Your task to perform on an android device: turn on translation in the chrome app Image 0: 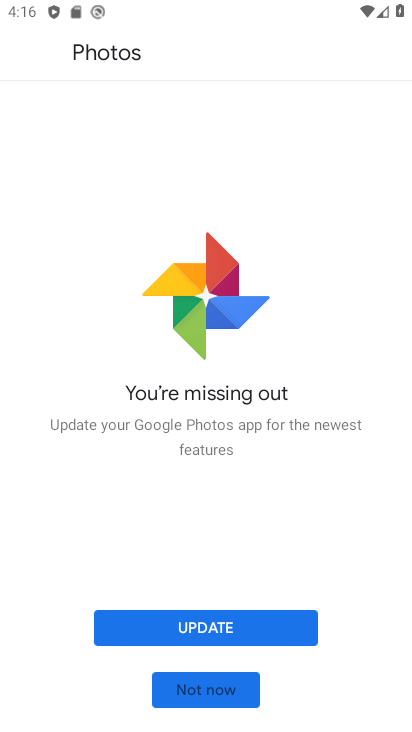
Step 0: press back button
Your task to perform on an android device: turn on translation in the chrome app Image 1: 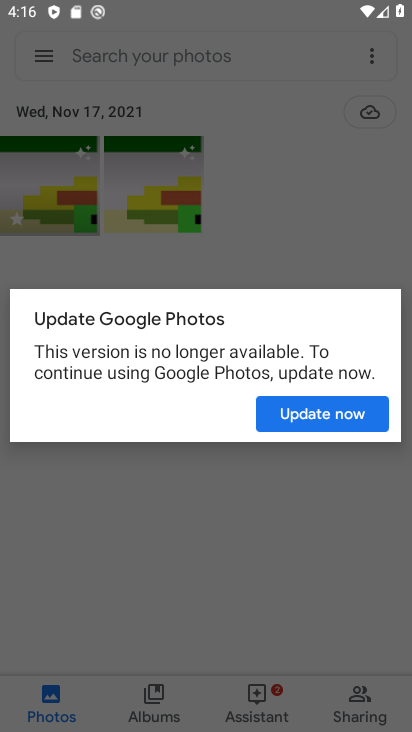
Step 1: press home button
Your task to perform on an android device: turn on translation in the chrome app Image 2: 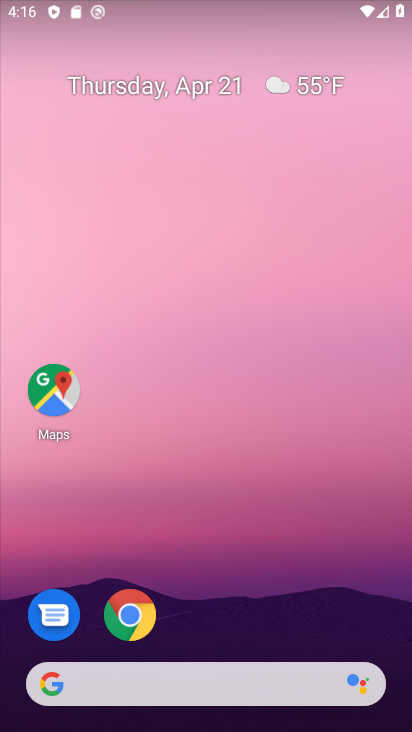
Step 2: drag from (224, 535) to (149, 9)
Your task to perform on an android device: turn on translation in the chrome app Image 3: 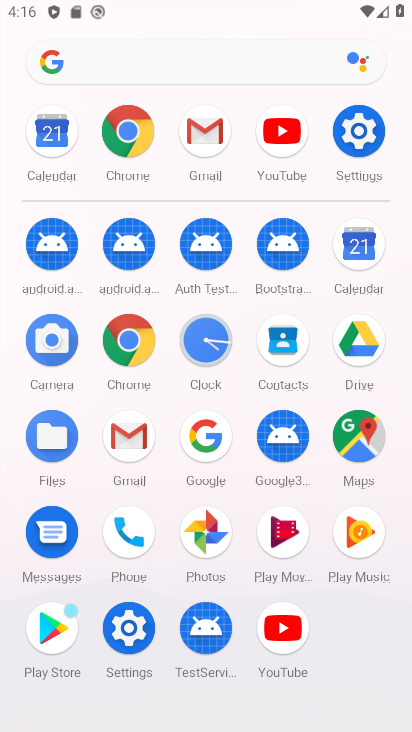
Step 3: click (129, 338)
Your task to perform on an android device: turn on translation in the chrome app Image 4: 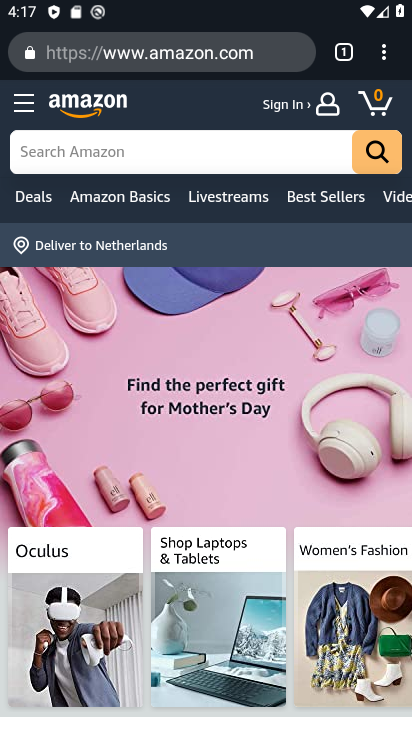
Step 4: drag from (381, 47) to (225, 679)
Your task to perform on an android device: turn on translation in the chrome app Image 5: 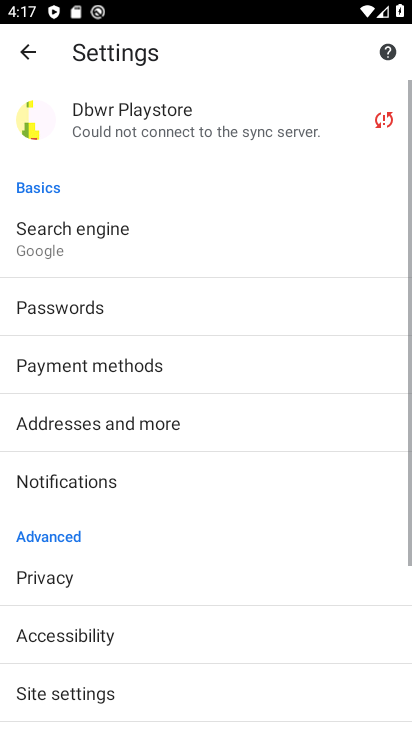
Step 5: drag from (245, 516) to (195, 146)
Your task to perform on an android device: turn on translation in the chrome app Image 6: 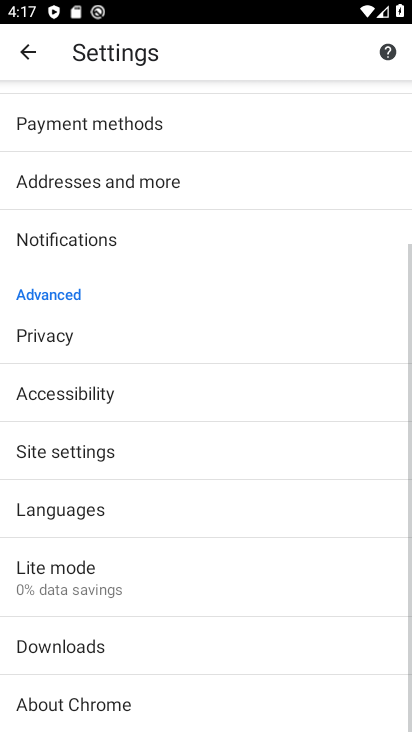
Step 6: click (89, 512)
Your task to perform on an android device: turn on translation in the chrome app Image 7: 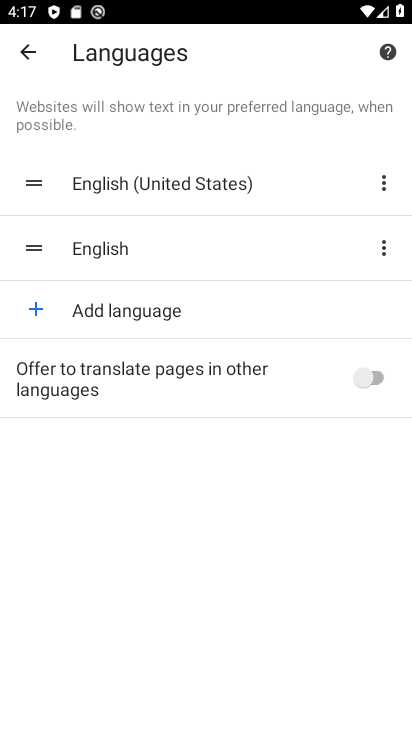
Step 7: click (368, 371)
Your task to perform on an android device: turn on translation in the chrome app Image 8: 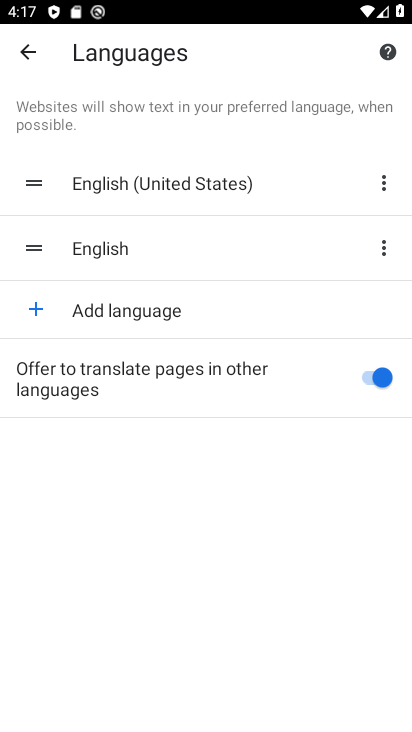
Step 8: task complete